Your task to perform on an android device: toggle wifi Image 0: 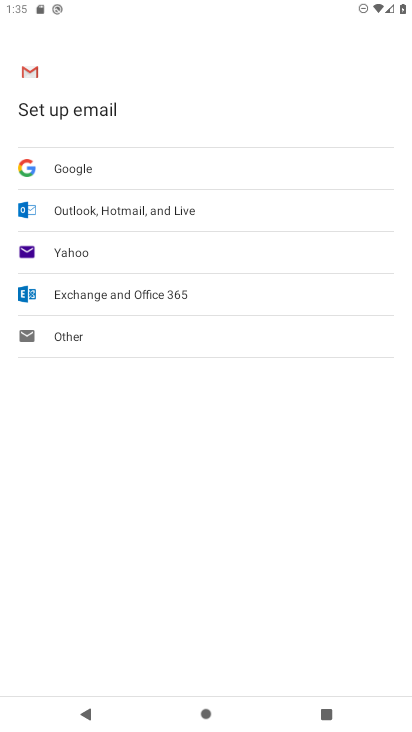
Step 0: press home button
Your task to perform on an android device: toggle wifi Image 1: 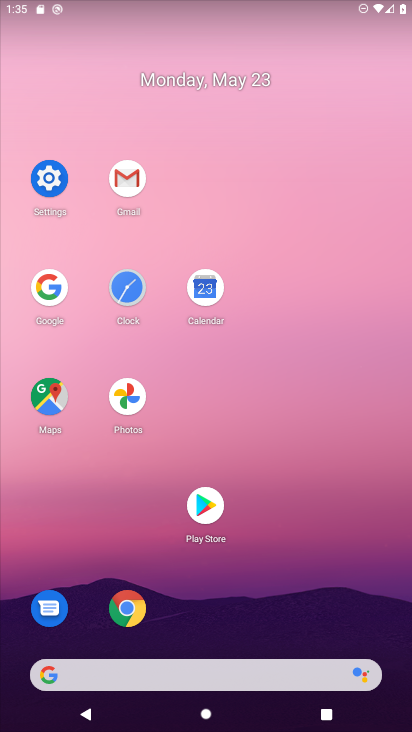
Step 1: click (46, 166)
Your task to perform on an android device: toggle wifi Image 2: 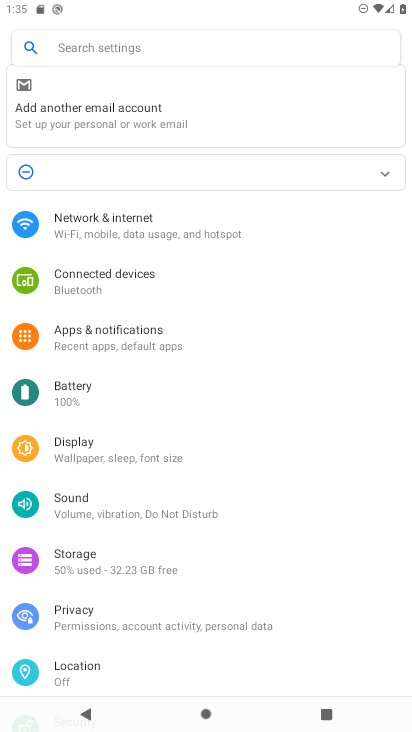
Step 2: click (110, 226)
Your task to perform on an android device: toggle wifi Image 3: 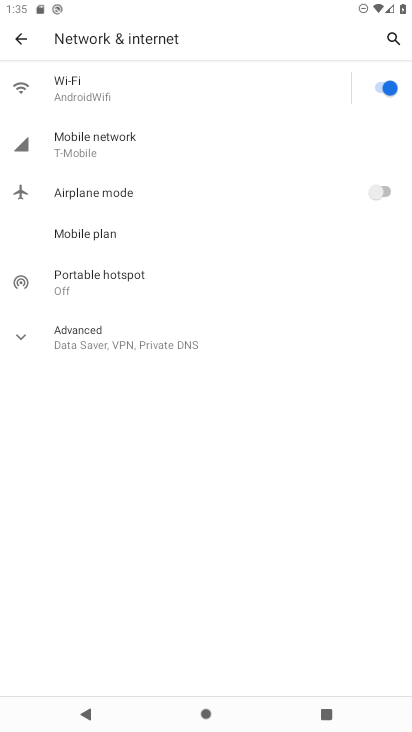
Step 3: click (381, 90)
Your task to perform on an android device: toggle wifi Image 4: 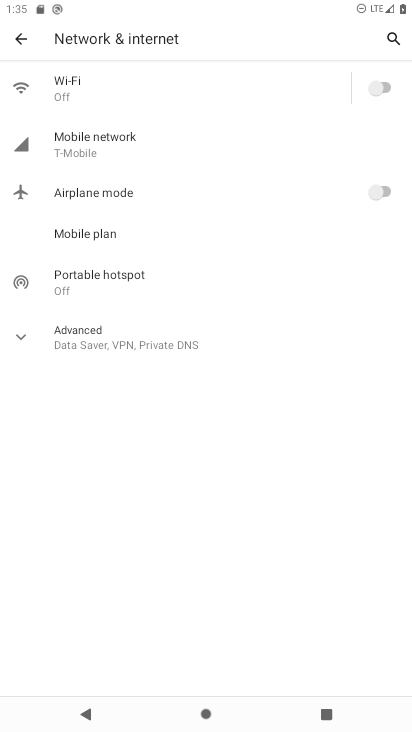
Step 4: task complete